Your task to perform on an android device: turn on showing notifications on the lock screen Image 0: 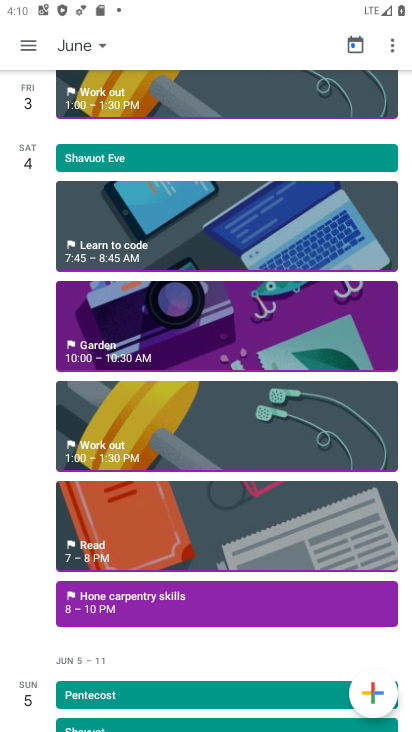
Step 0: press back button
Your task to perform on an android device: turn on showing notifications on the lock screen Image 1: 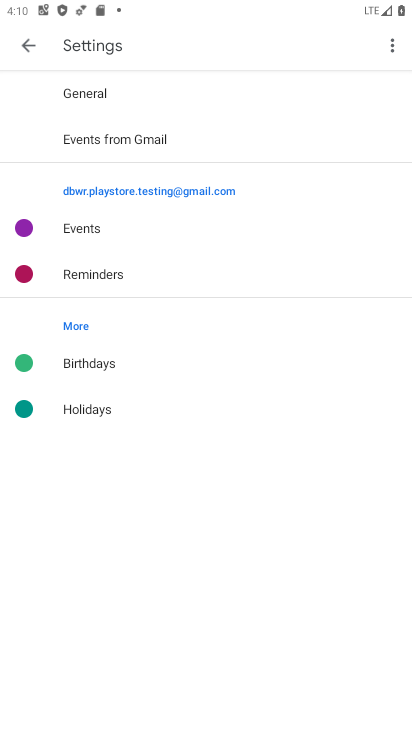
Step 1: press home button
Your task to perform on an android device: turn on showing notifications on the lock screen Image 2: 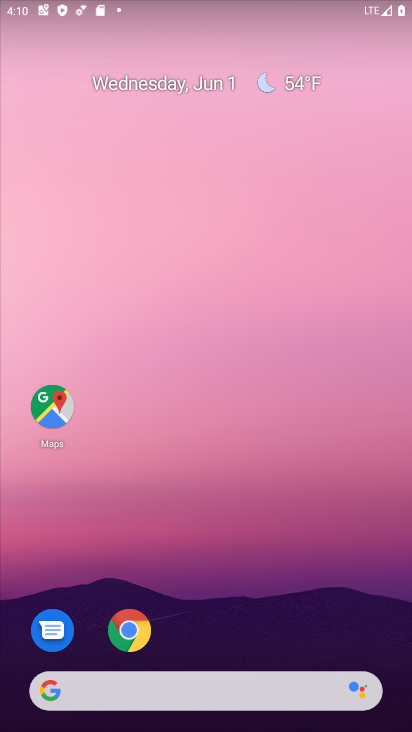
Step 2: drag from (303, 555) to (255, 1)
Your task to perform on an android device: turn on showing notifications on the lock screen Image 3: 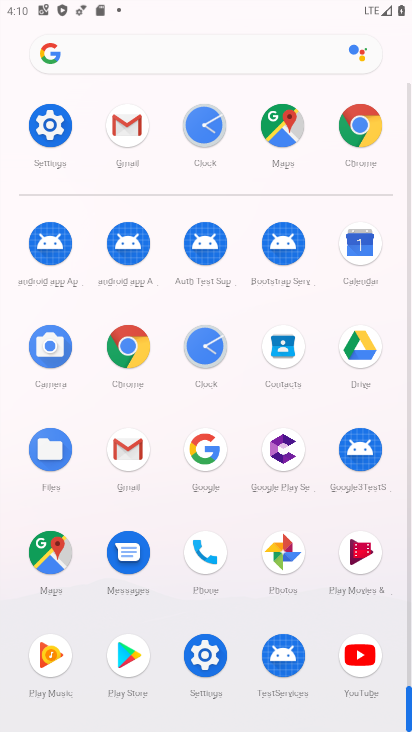
Step 3: drag from (11, 574) to (16, 236)
Your task to perform on an android device: turn on showing notifications on the lock screen Image 4: 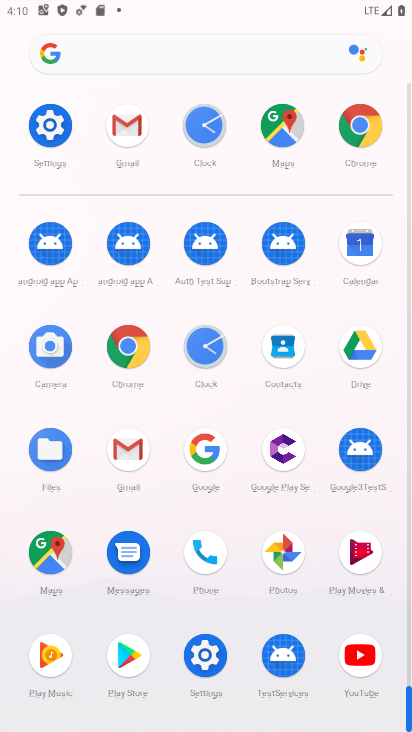
Step 4: click (205, 641)
Your task to perform on an android device: turn on showing notifications on the lock screen Image 5: 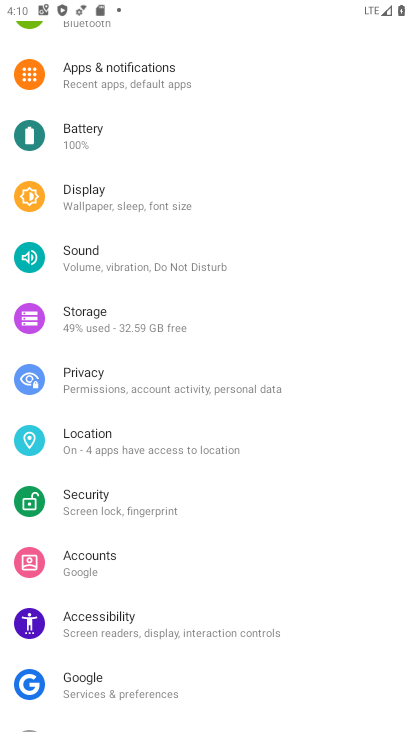
Step 5: drag from (306, 182) to (305, 626)
Your task to perform on an android device: turn on showing notifications on the lock screen Image 6: 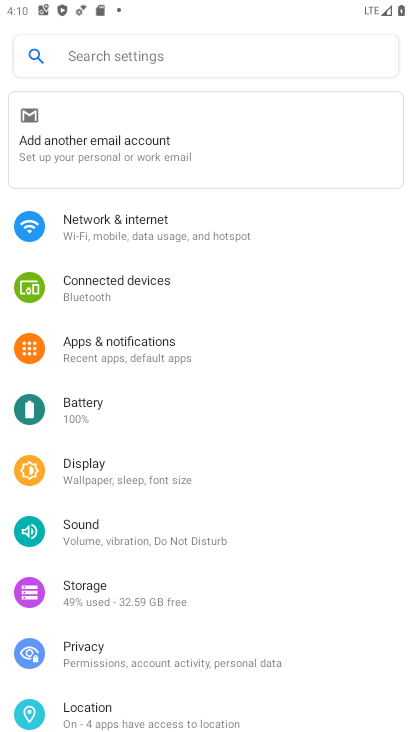
Step 6: click (199, 342)
Your task to perform on an android device: turn on showing notifications on the lock screen Image 7: 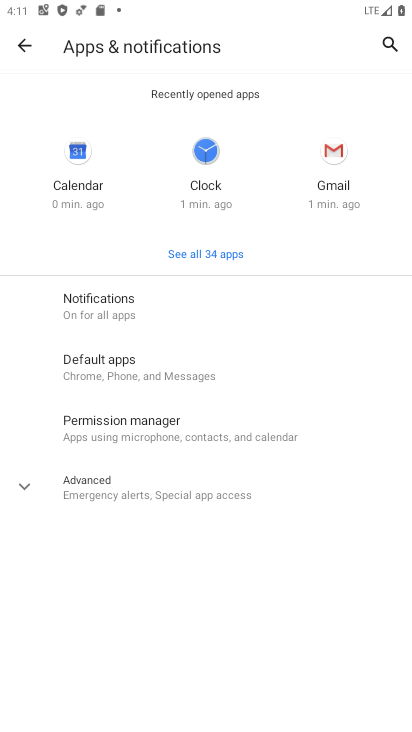
Step 7: click (6, 481)
Your task to perform on an android device: turn on showing notifications on the lock screen Image 8: 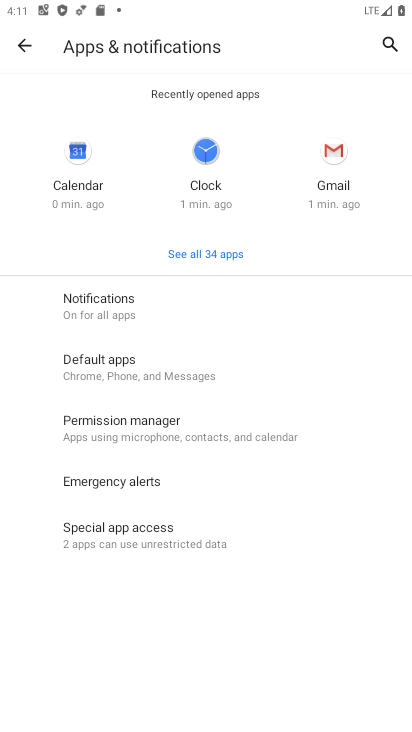
Step 8: click (185, 300)
Your task to perform on an android device: turn on showing notifications on the lock screen Image 9: 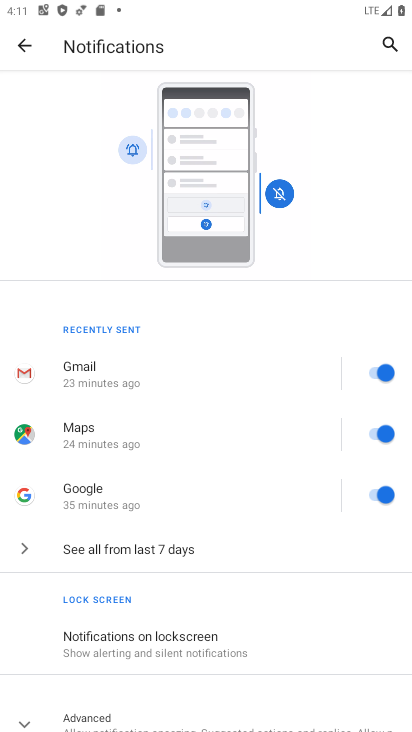
Step 9: drag from (244, 545) to (268, 128)
Your task to perform on an android device: turn on showing notifications on the lock screen Image 10: 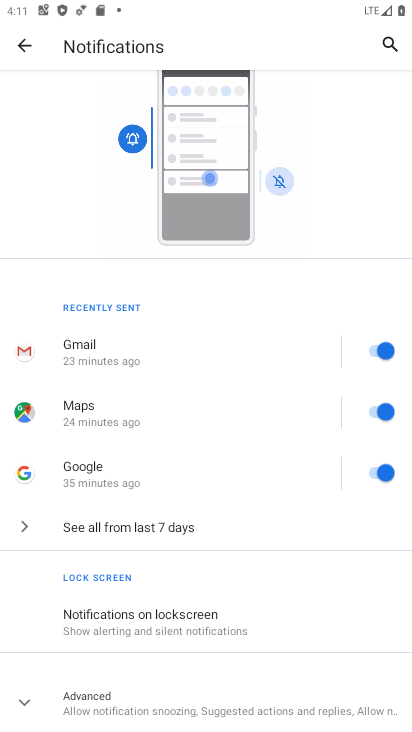
Step 10: drag from (271, 511) to (293, 128)
Your task to perform on an android device: turn on showing notifications on the lock screen Image 11: 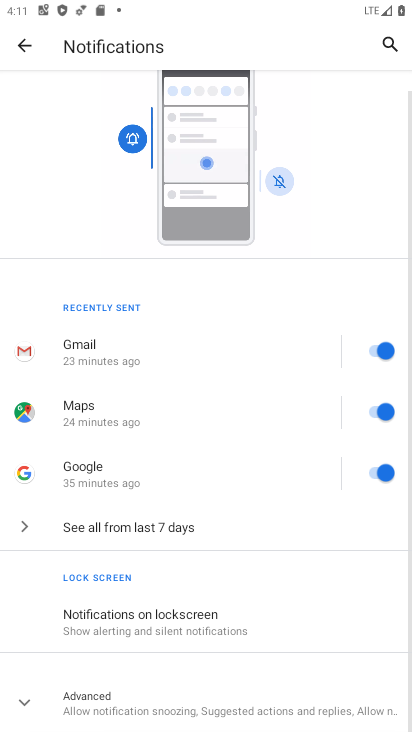
Step 11: click (124, 696)
Your task to perform on an android device: turn on showing notifications on the lock screen Image 12: 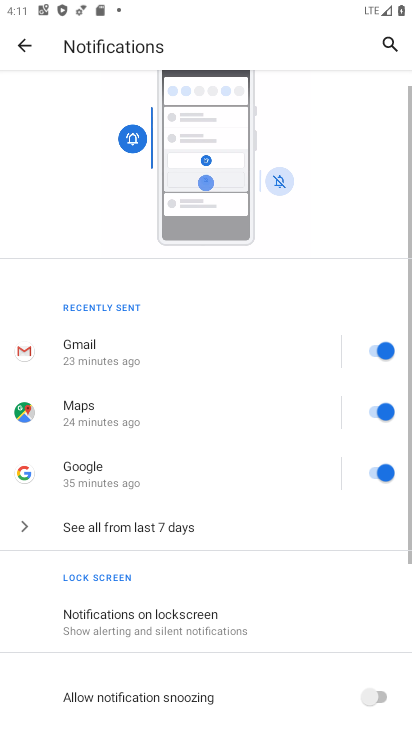
Step 12: drag from (250, 694) to (287, 194)
Your task to perform on an android device: turn on showing notifications on the lock screen Image 13: 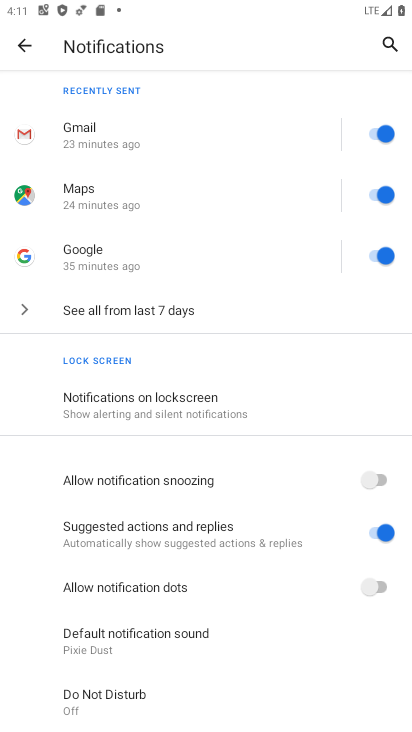
Step 13: click (193, 404)
Your task to perform on an android device: turn on showing notifications on the lock screen Image 14: 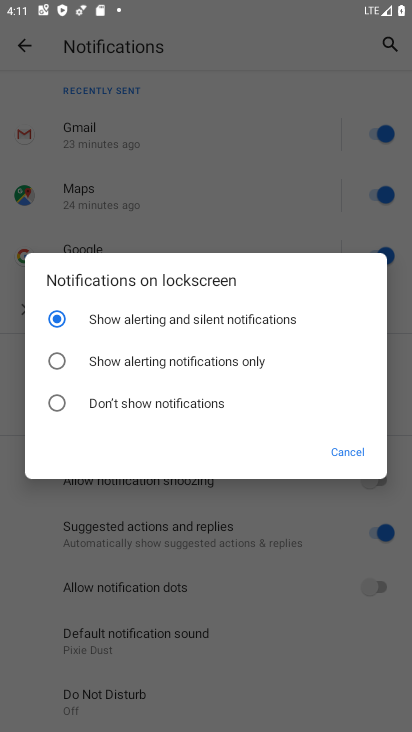
Step 14: click (187, 322)
Your task to perform on an android device: turn on showing notifications on the lock screen Image 15: 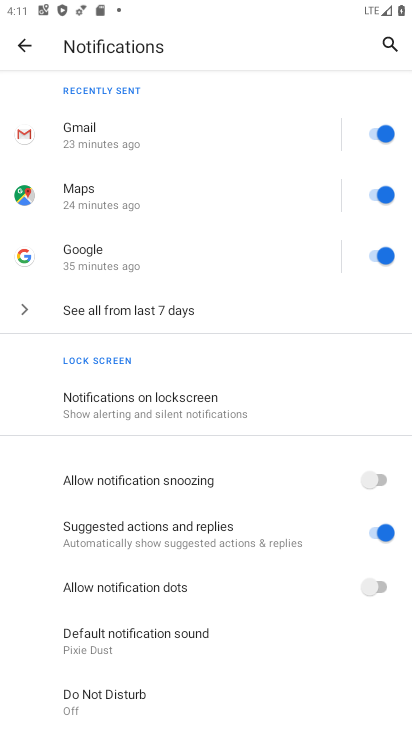
Step 15: task complete